Your task to perform on an android device: What's the weather going to be tomorrow? Image 0: 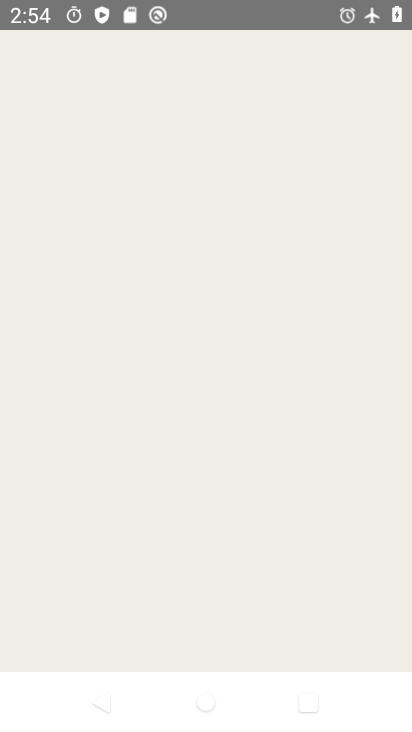
Step 0: click (289, 128)
Your task to perform on an android device: What's the weather going to be tomorrow? Image 1: 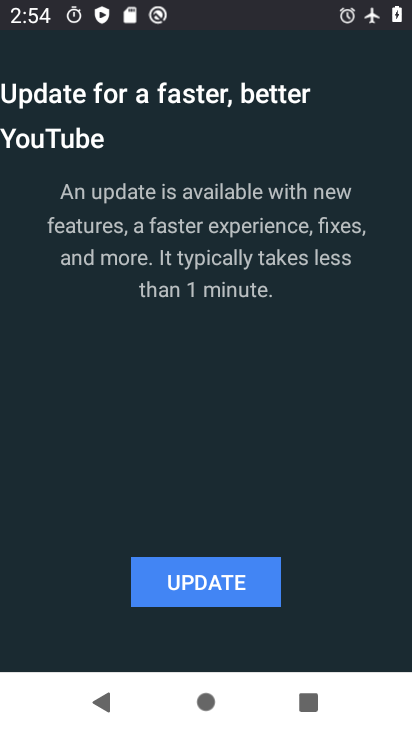
Step 1: press home button
Your task to perform on an android device: What's the weather going to be tomorrow? Image 2: 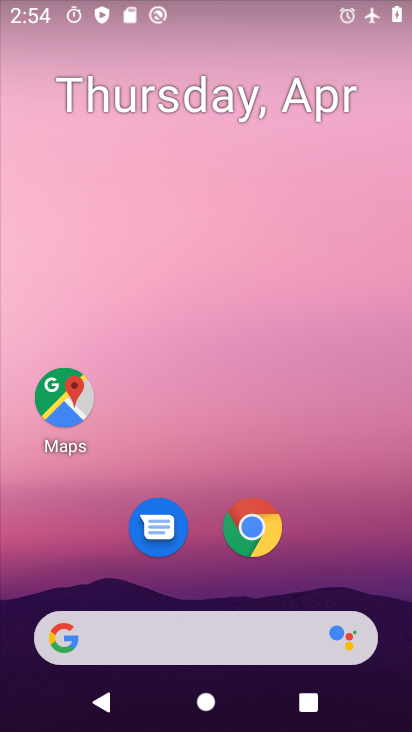
Step 2: click (251, 536)
Your task to perform on an android device: What's the weather going to be tomorrow? Image 3: 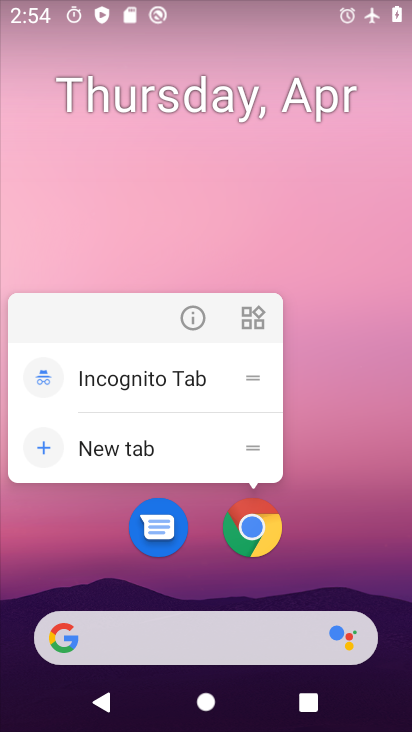
Step 3: drag from (302, 544) to (334, 305)
Your task to perform on an android device: What's the weather going to be tomorrow? Image 4: 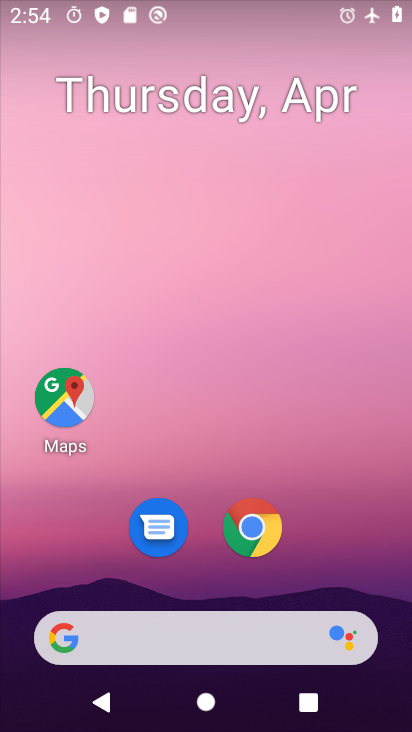
Step 4: click (252, 524)
Your task to perform on an android device: What's the weather going to be tomorrow? Image 5: 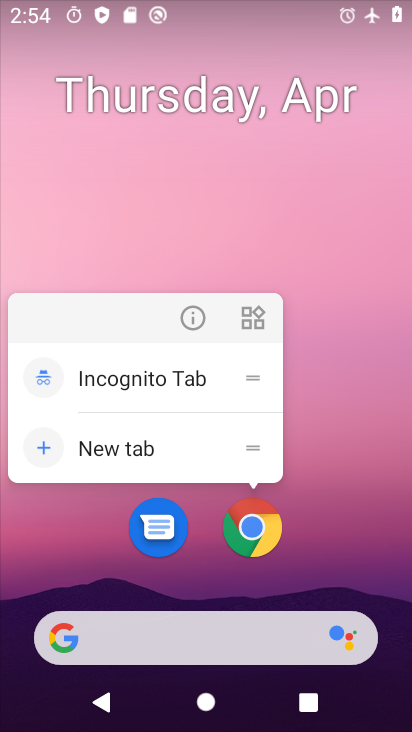
Step 5: click (259, 543)
Your task to perform on an android device: What's the weather going to be tomorrow? Image 6: 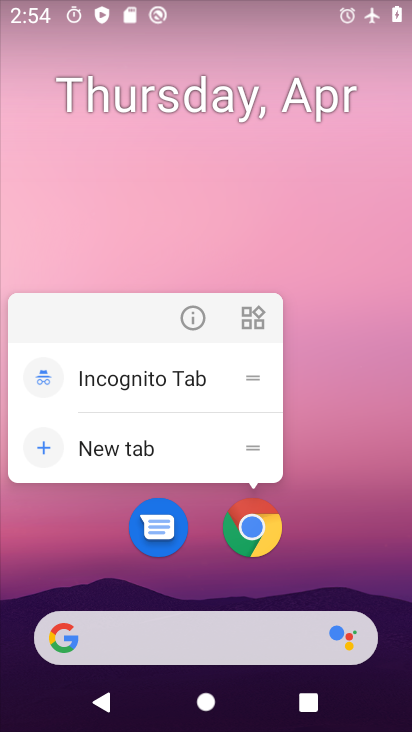
Step 6: click (245, 530)
Your task to perform on an android device: What's the weather going to be tomorrow? Image 7: 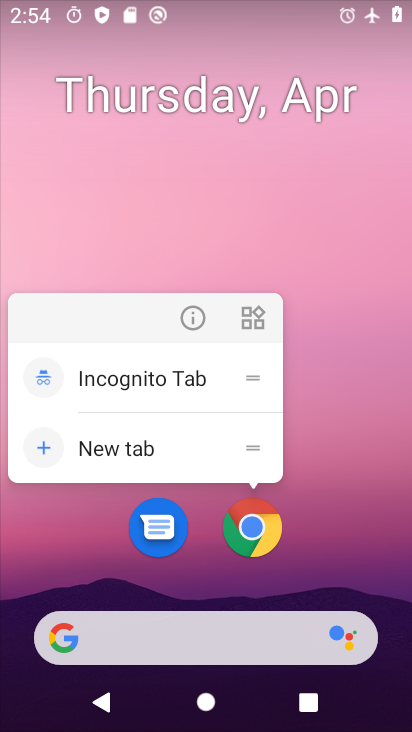
Step 7: click (282, 525)
Your task to perform on an android device: What's the weather going to be tomorrow? Image 8: 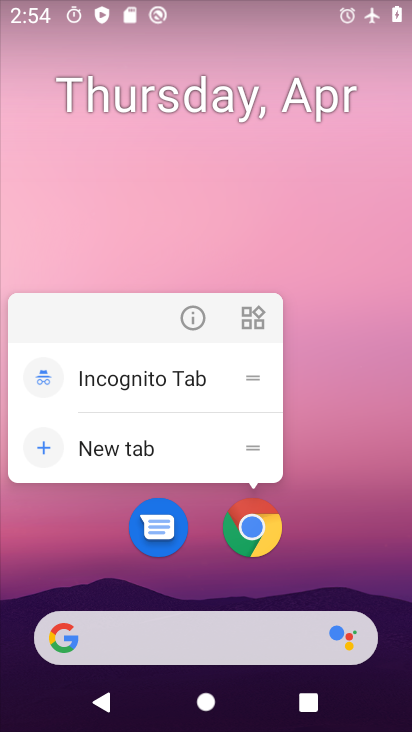
Step 8: click (305, 408)
Your task to perform on an android device: What's the weather going to be tomorrow? Image 9: 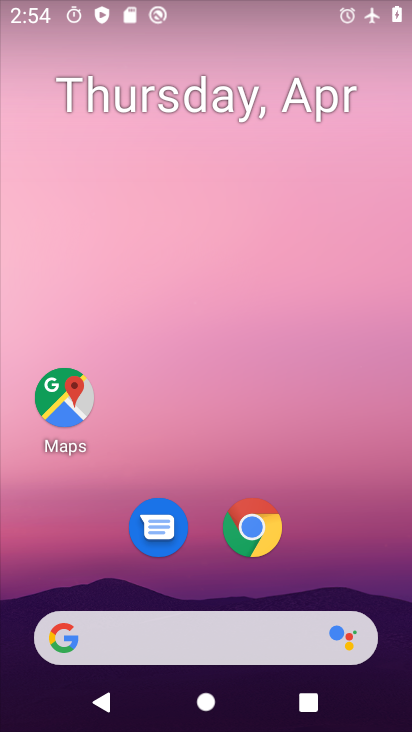
Step 9: drag from (329, 554) to (326, 128)
Your task to perform on an android device: What's the weather going to be tomorrow? Image 10: 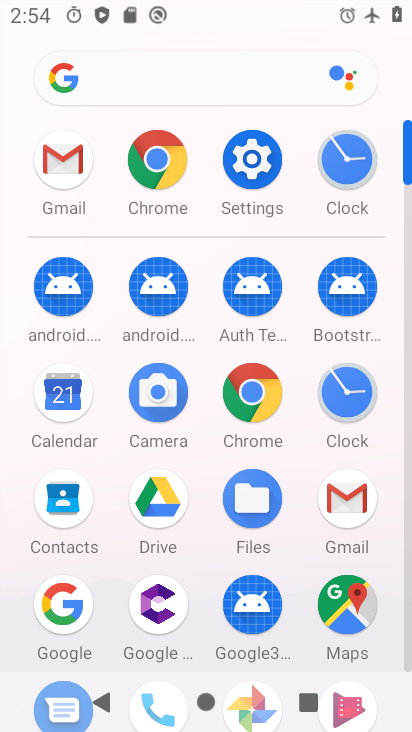
Step 10: click (263, 406)
Your task to perform on an android device: What's the weather going to be tomorrow? Image 11: 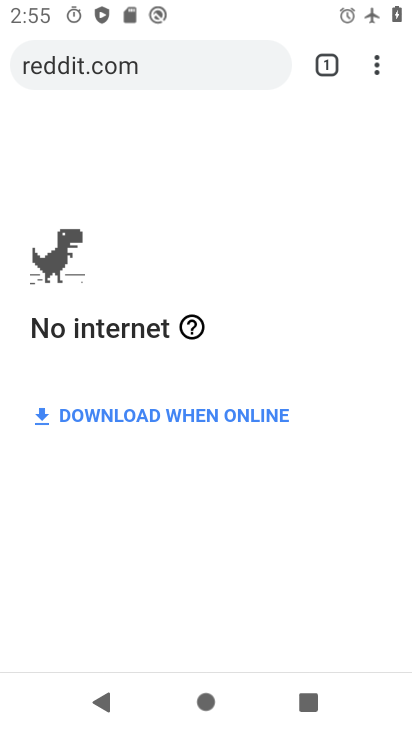
Step 11: task complete